Your task to perform on an android device: turn notification dots on Image 0: 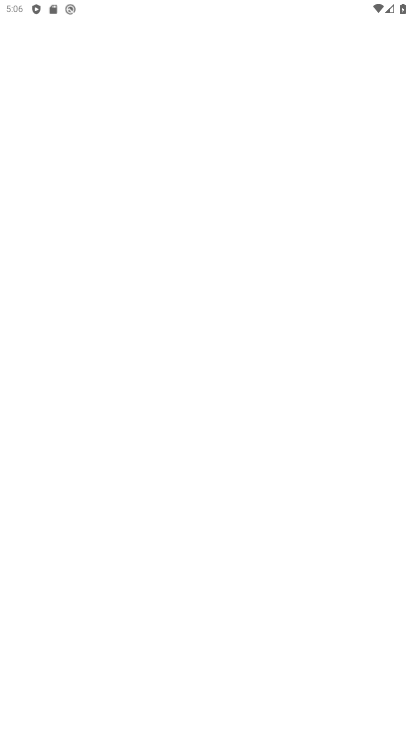
Step 0: press home button
Your task to perform on an android device: turn notification dots on Image 1: 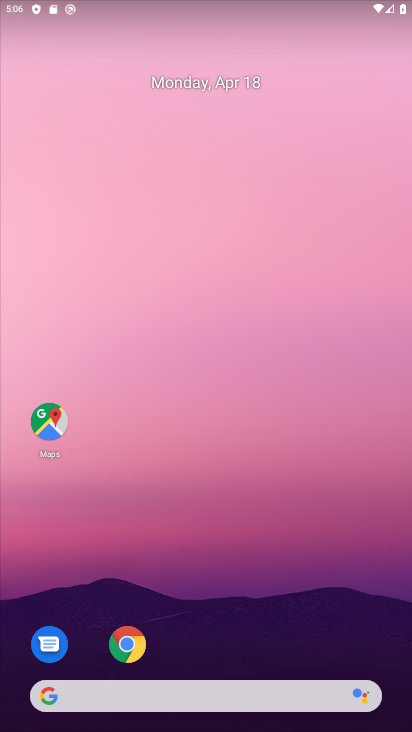
Step 1: drag from (211, 644) to (262, 33)
Your task to perform on an android device: turn notification dots on Image 2: 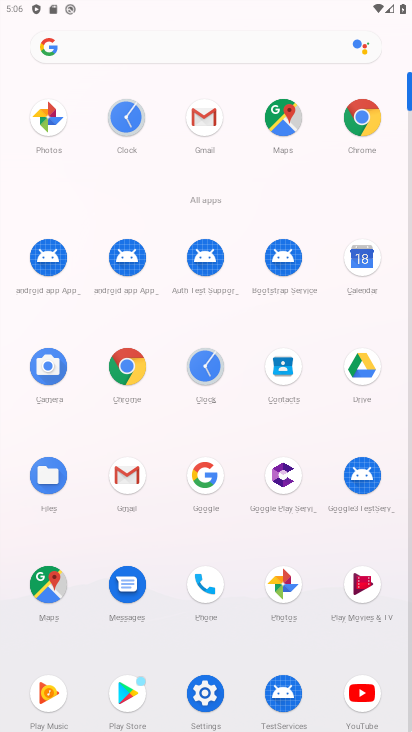
Step 2: click (206, 691)
Your task to perform on an android device: turn notification dots on Image 3: 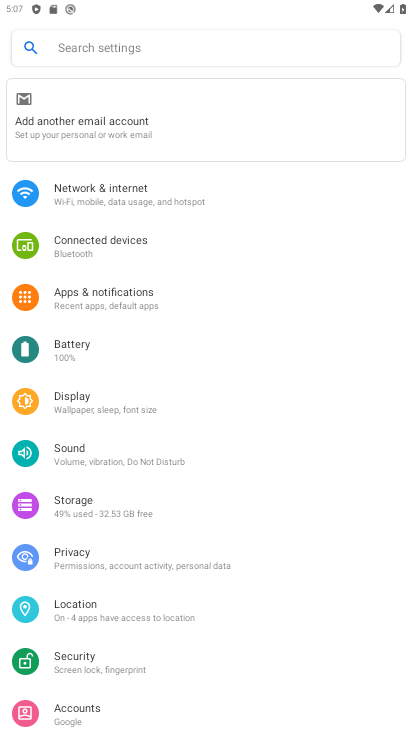
Step 3: click (129, 305)
Your task to perform on an android device: turn notification dots on Image 4: 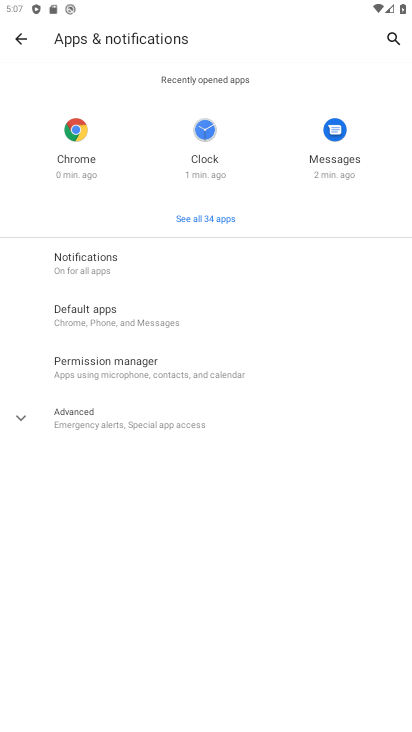
Step 4: click (128, 264)
Your task to perform on an android device: turn notification dots on Image 5: 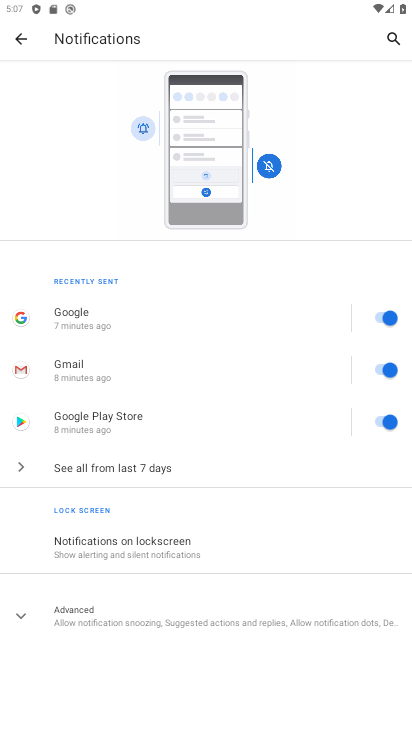
Step 5: click (104, 615)
Your task to perform on an android device: turn notification dots on Image 6: 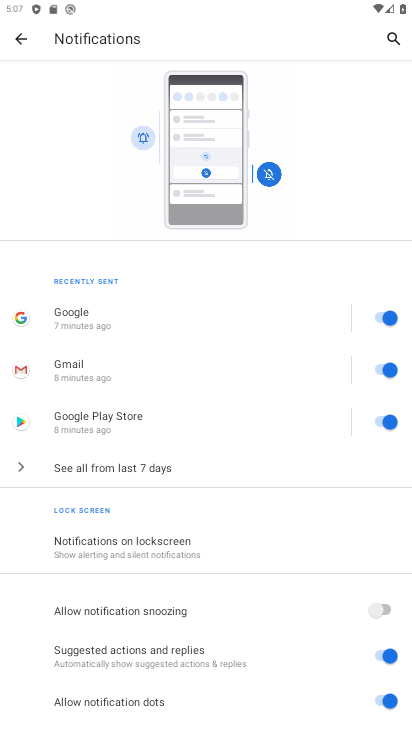
Step 6: task complete